Your task to perform on an android device: toggle notification dots Image 0: 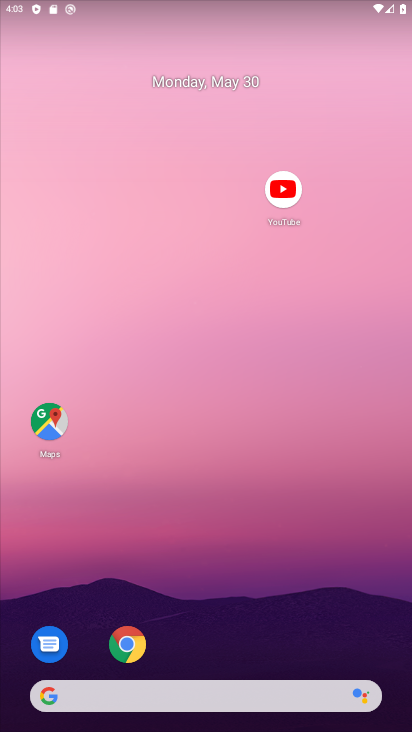
Step 0: drag from (187, 629) to (200, 98)
Your task to perform on an android device: toggle notification dots Image 1: 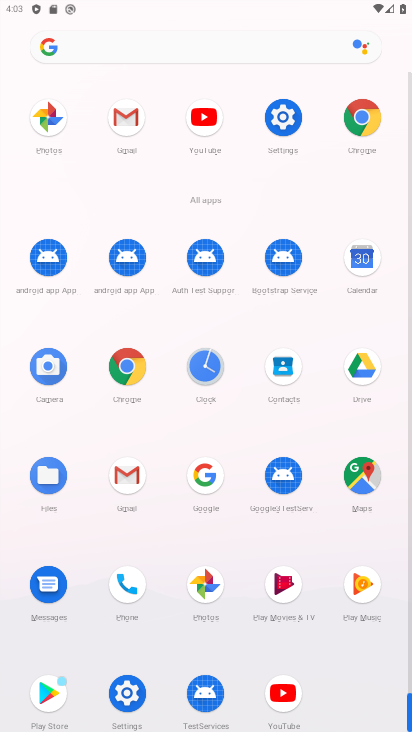
Step 1: click (280, 116)
Your task to perform on an android device: toggle notification dots Image 2: 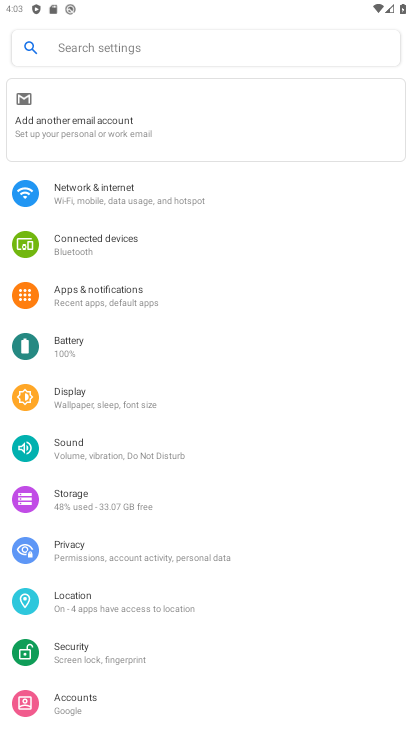
Step 2: click (103, 302)
Your task to perform on an android device: toggle notification dots Image 3: 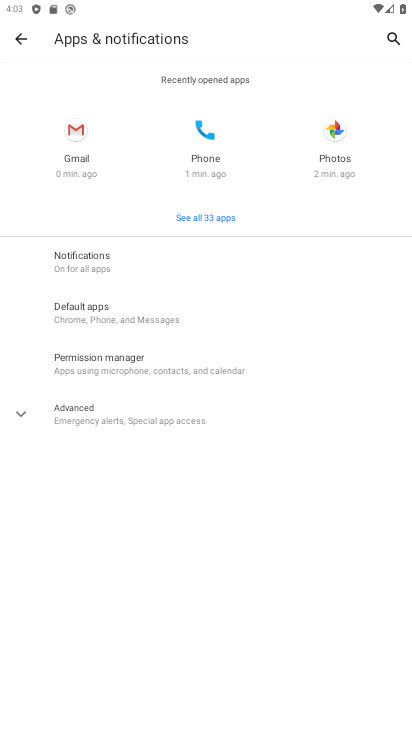
Step 3: click (80, 268)
Your task to perform on an android device: toggle notification dots Image 4: 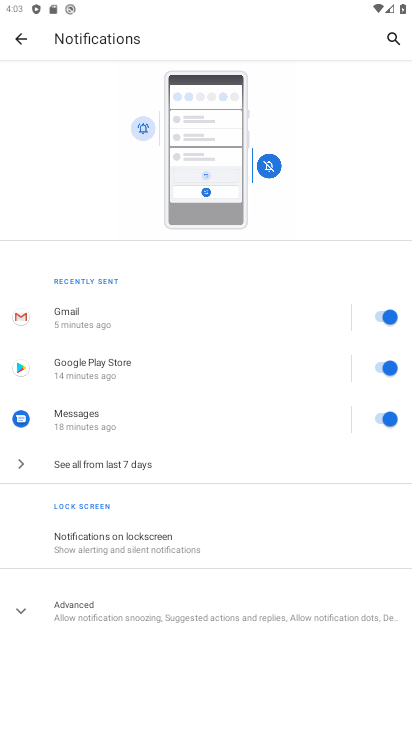
Step 4: click (95, 617)
Your task to perform on an android device: toggle notification dots Image 5: 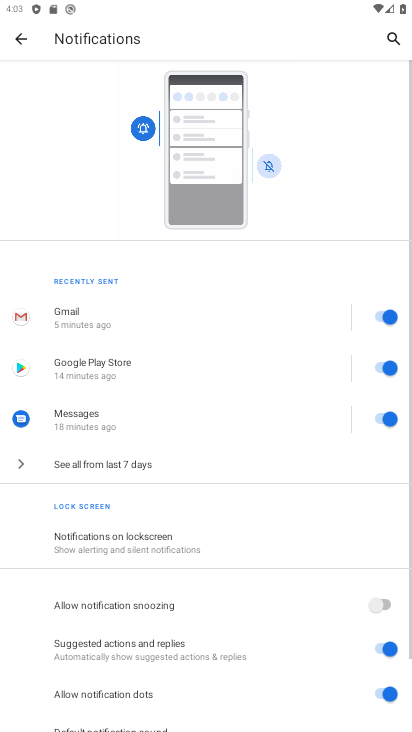
Step 5: drag from (95, 617) to (220, 173)
Your task to perform on an android device: toggle notification dots Image 6: 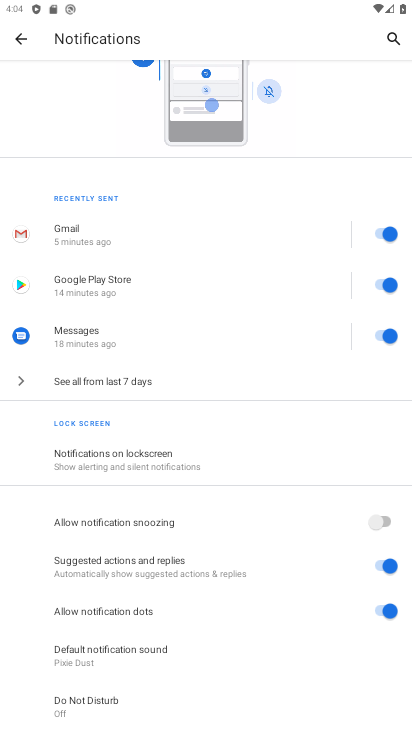
Step 6: click (385, 610)
Your task to perform on an android device: toggle notification dots Image 7: 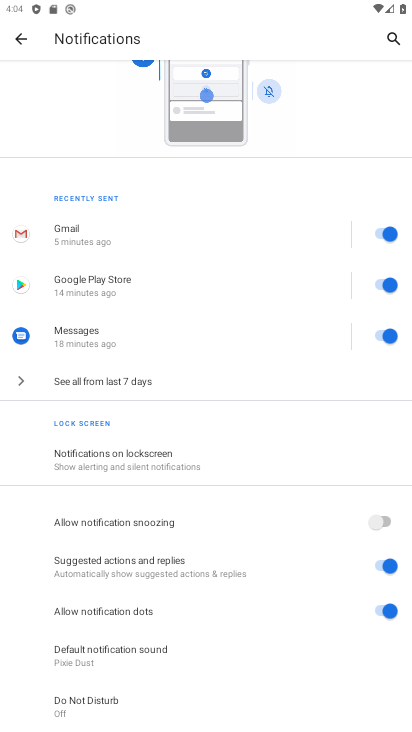
Step 7: click (385, 610)
Your task to perform on an android device: toggle notification dots Image 8: 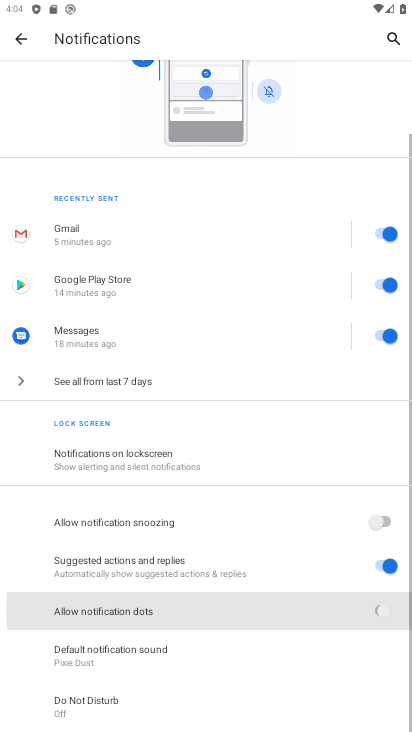
Step 8: click (385, 610)
Your task to perform on an android device: toggle notification dots Image 9: 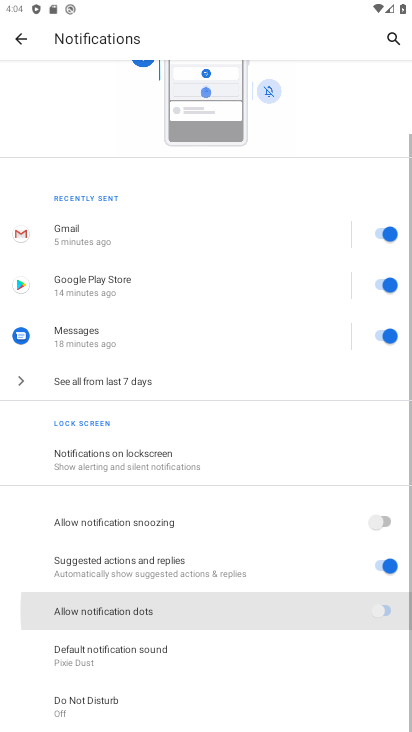
Step 9: click (385, 610)
Your task to perform on an android device: toggle notification dots Image 10: 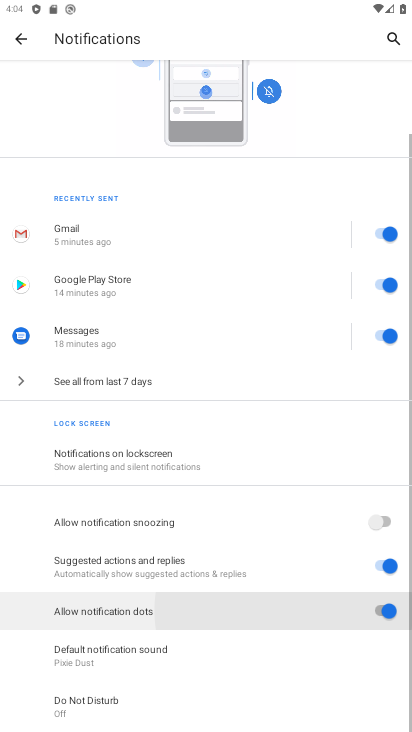
Step 10: click (385, 610)
Your task to perform on an android device: toggle notification dots Image 11: 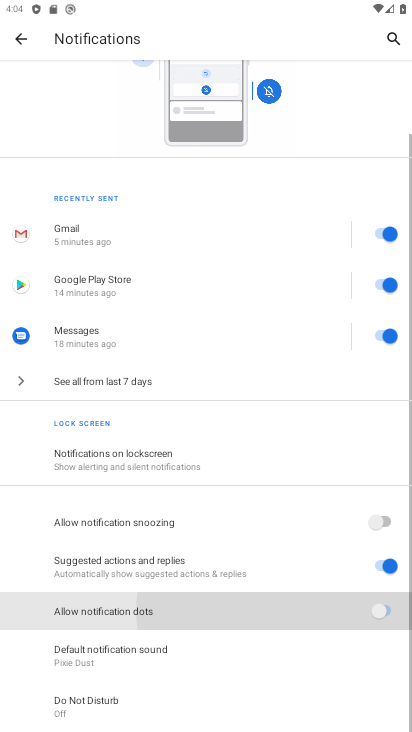
Step 11: click (385, 610)
Your task to perform on an android device: toggle notification dots Image 12: 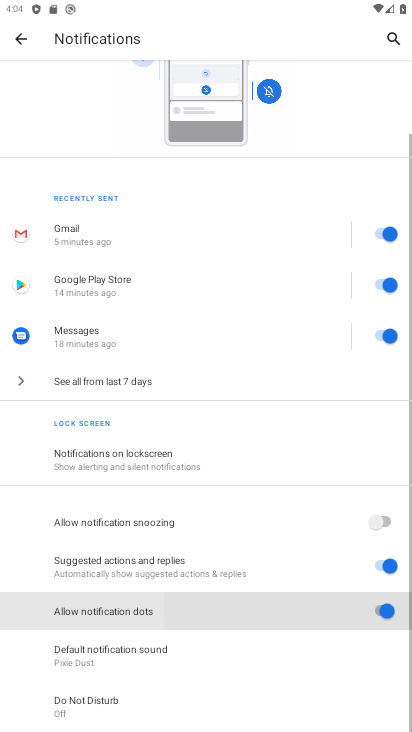
Step 12: click (385, 610)
Your task to perform on an android device: toggle notification dots Image 13: 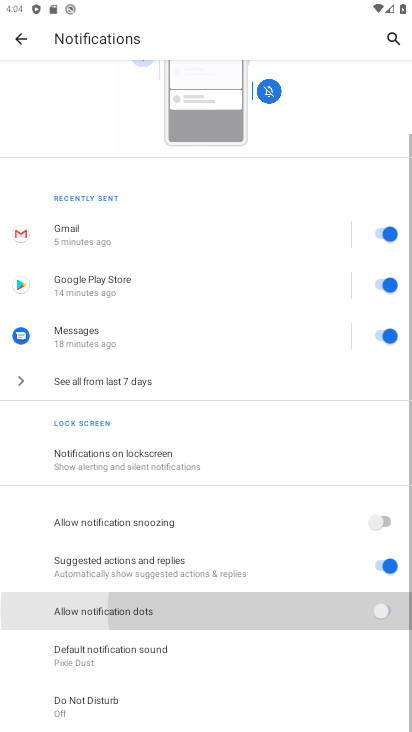
Step 13: click (385, 610)
Your task to perform on an android device: toggle notification dots Image 14: 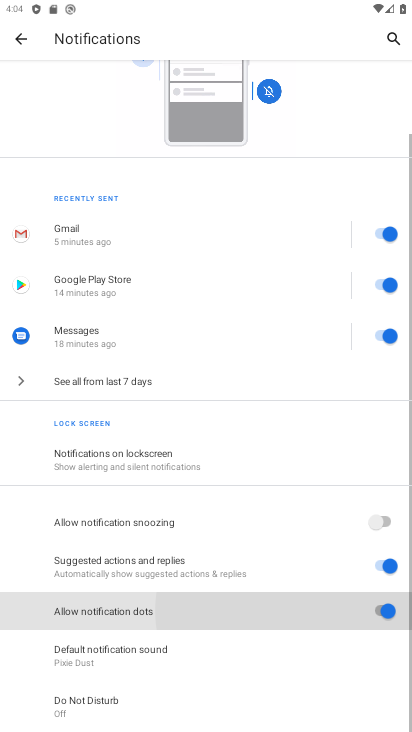
Step 14: click (385, 610)
Your task to perform on an android device: toggle notification dots Image 15: 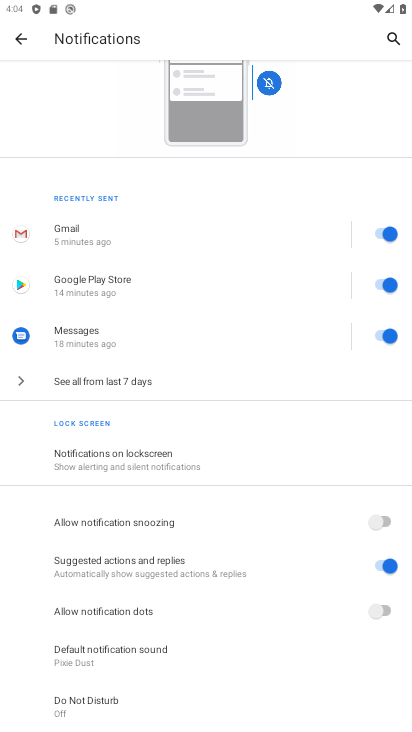
Step 15: task complete